Your task to perform on an android device: View the shopping cart on walmart. Add "dell xps" to the cart on walmart Image 0: 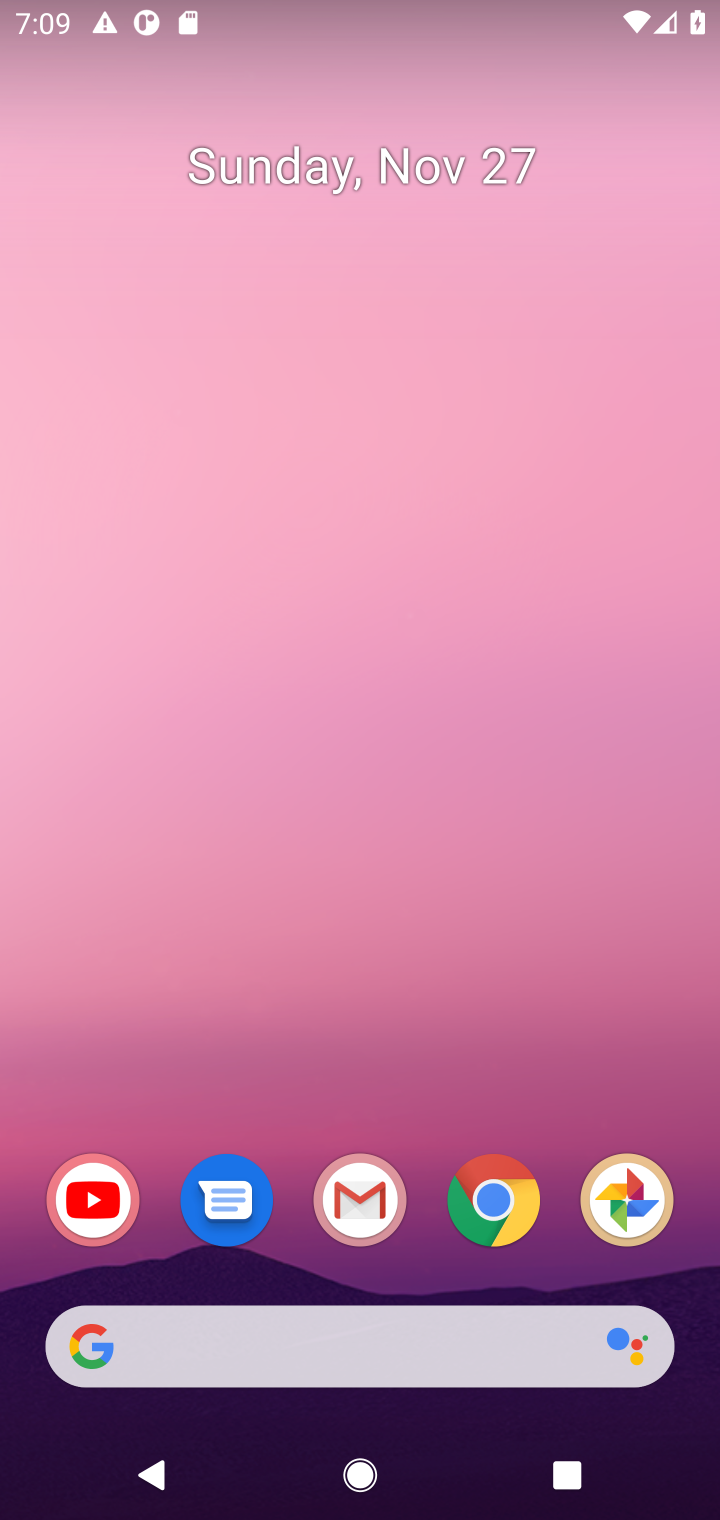
Step 0: click (493, 1205)
Your task to perform on an android device: View the shopping cart on walmart. Add "dell xps" to the cart on walmart Image 1: 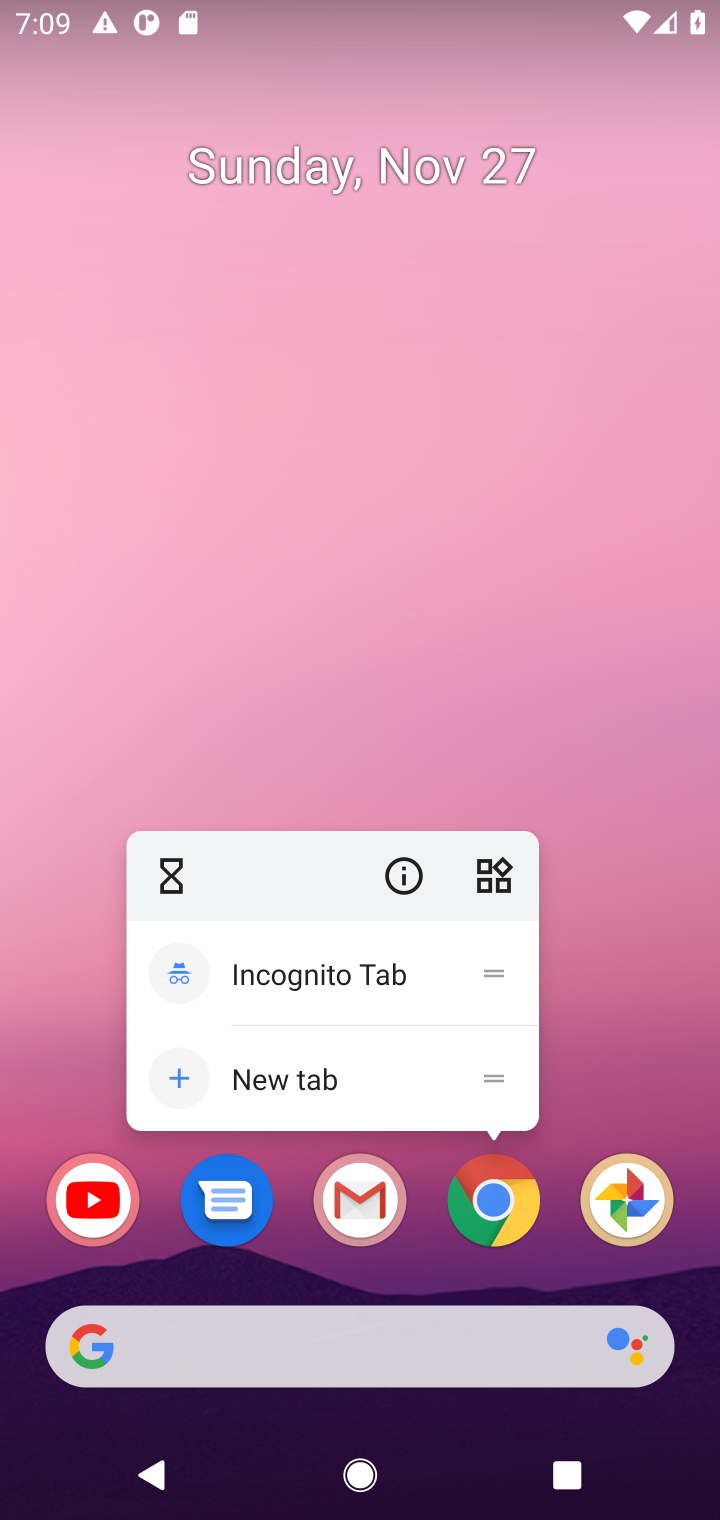
Step 1: click (493, 1205)
Your task to perform on an android device: View the shopping cart on walmart. Add "dell xps" to the cart on walmart Image 2: 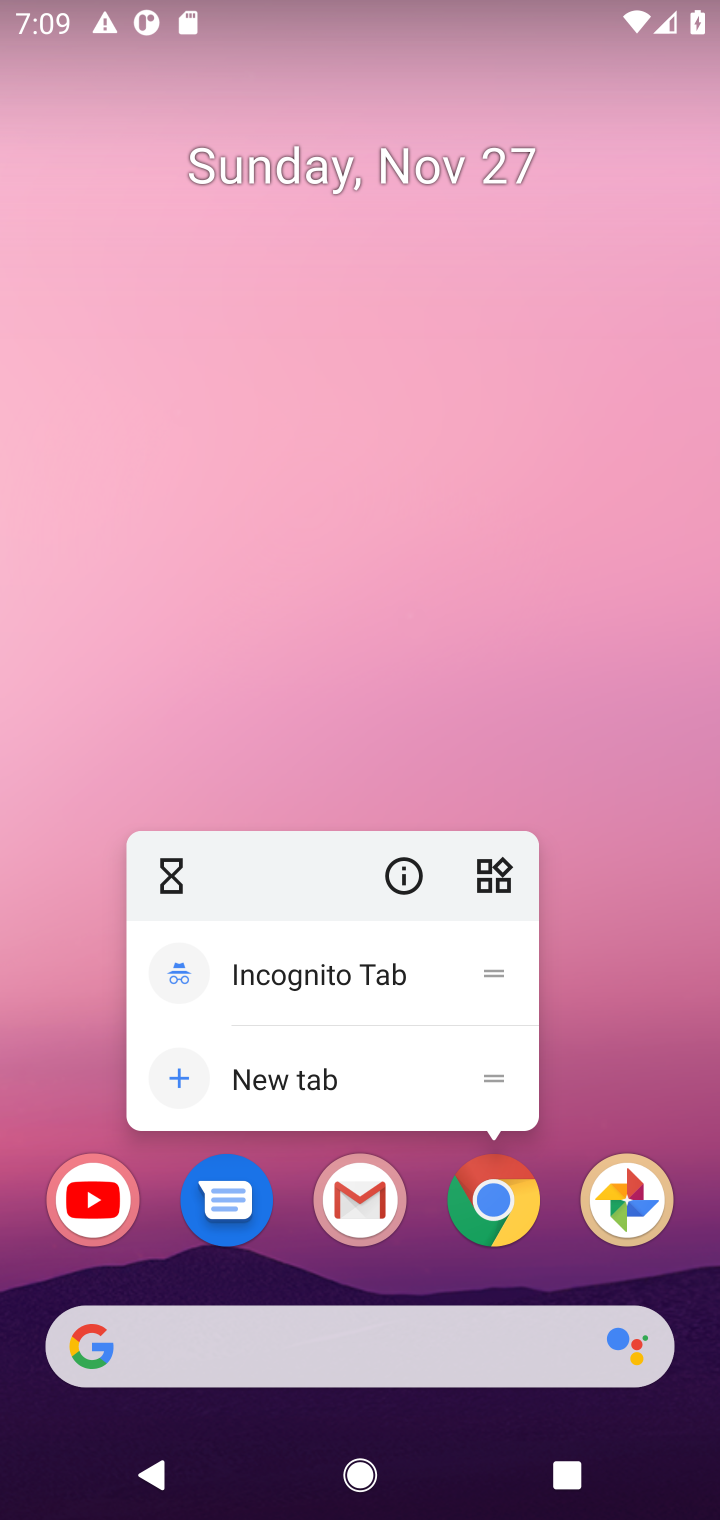
Step 2: click (493, 1205)
Your task to perform on an android device: View the shopping cart on walmart. Add "dell xps" to the cart on walmart Image 3: 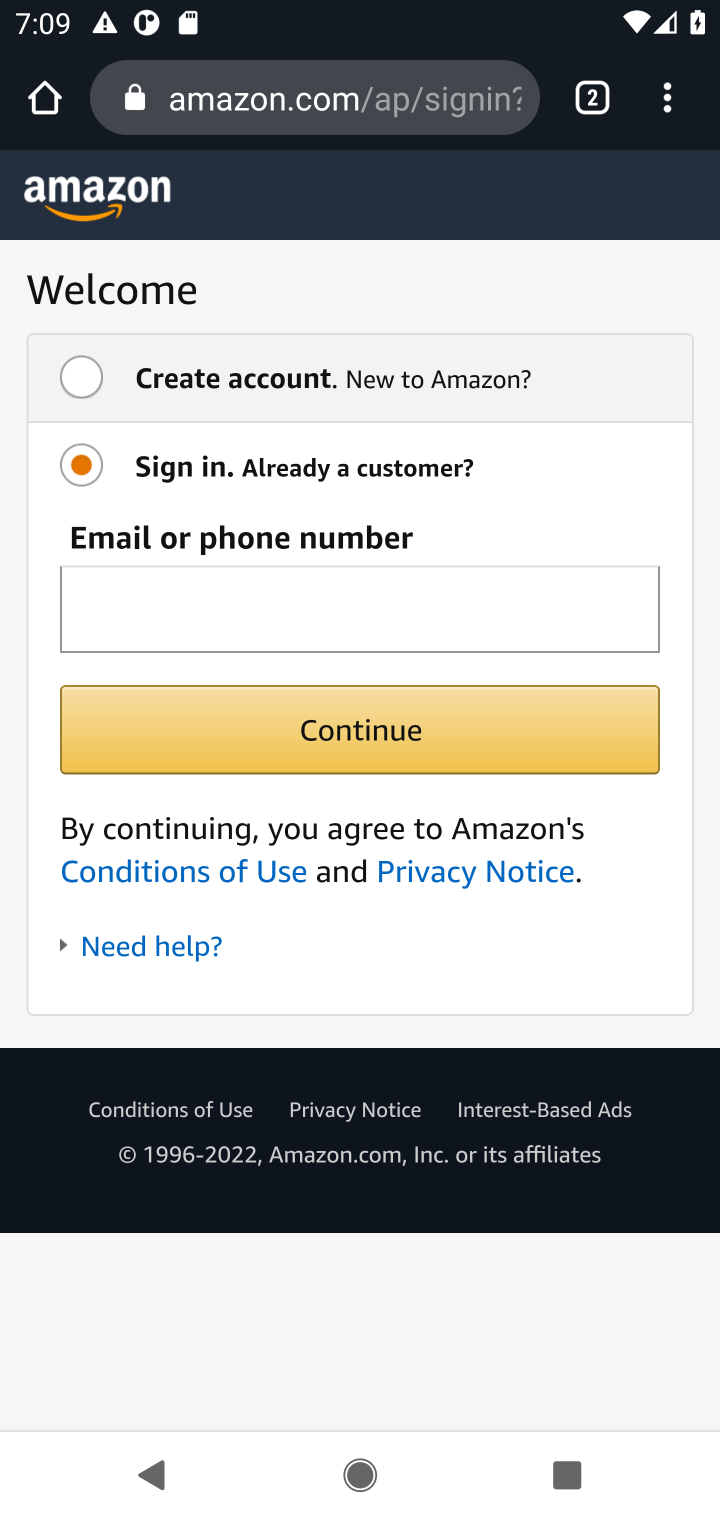
Step 3: click (321, 79)
Your task to perform on an android device: View the shopping cart on walmart. Add "dell xps" to the cart on walmart Image 4: 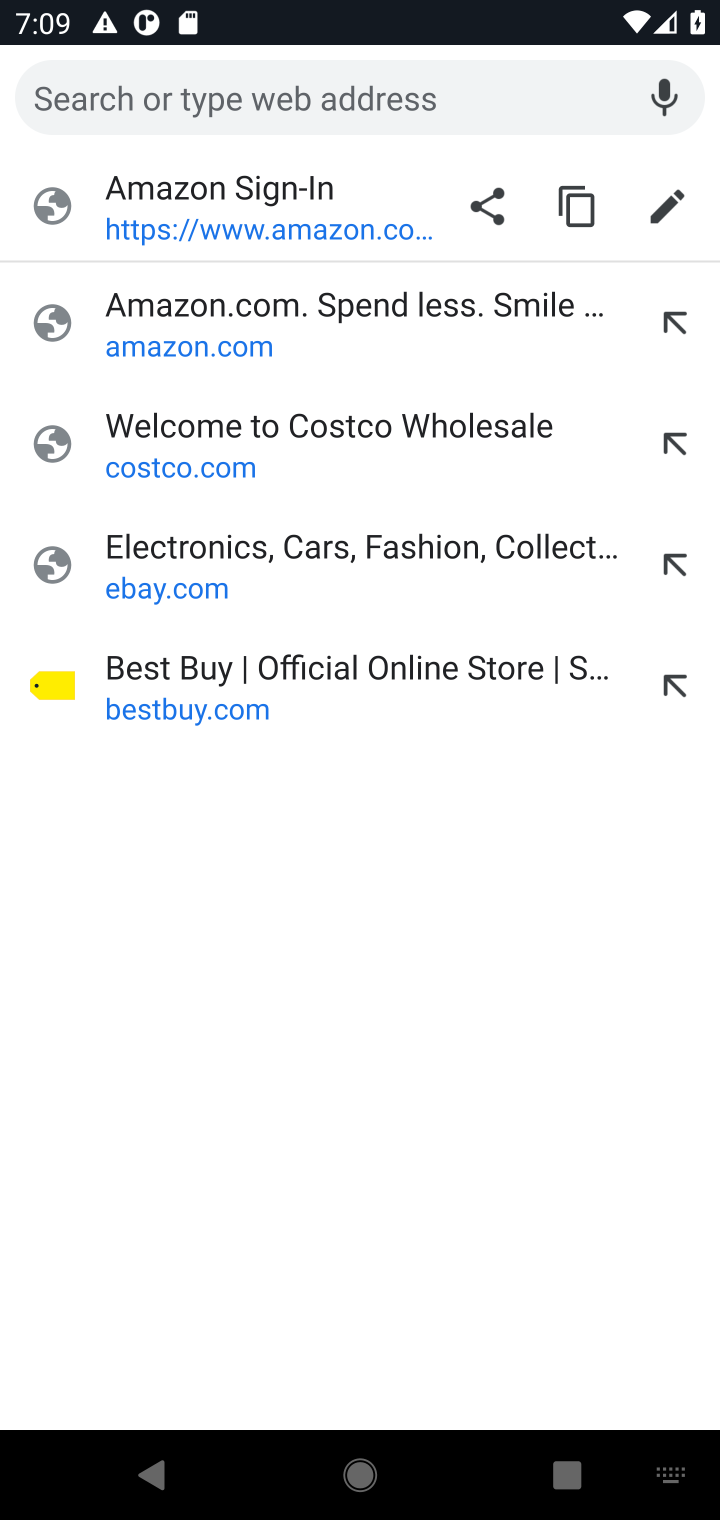
Step 4: type "walmart.com"
Your task to perform on an android device: View the shopping cart on walmart. Add "dell xps" to the cart on walmart Image 5: 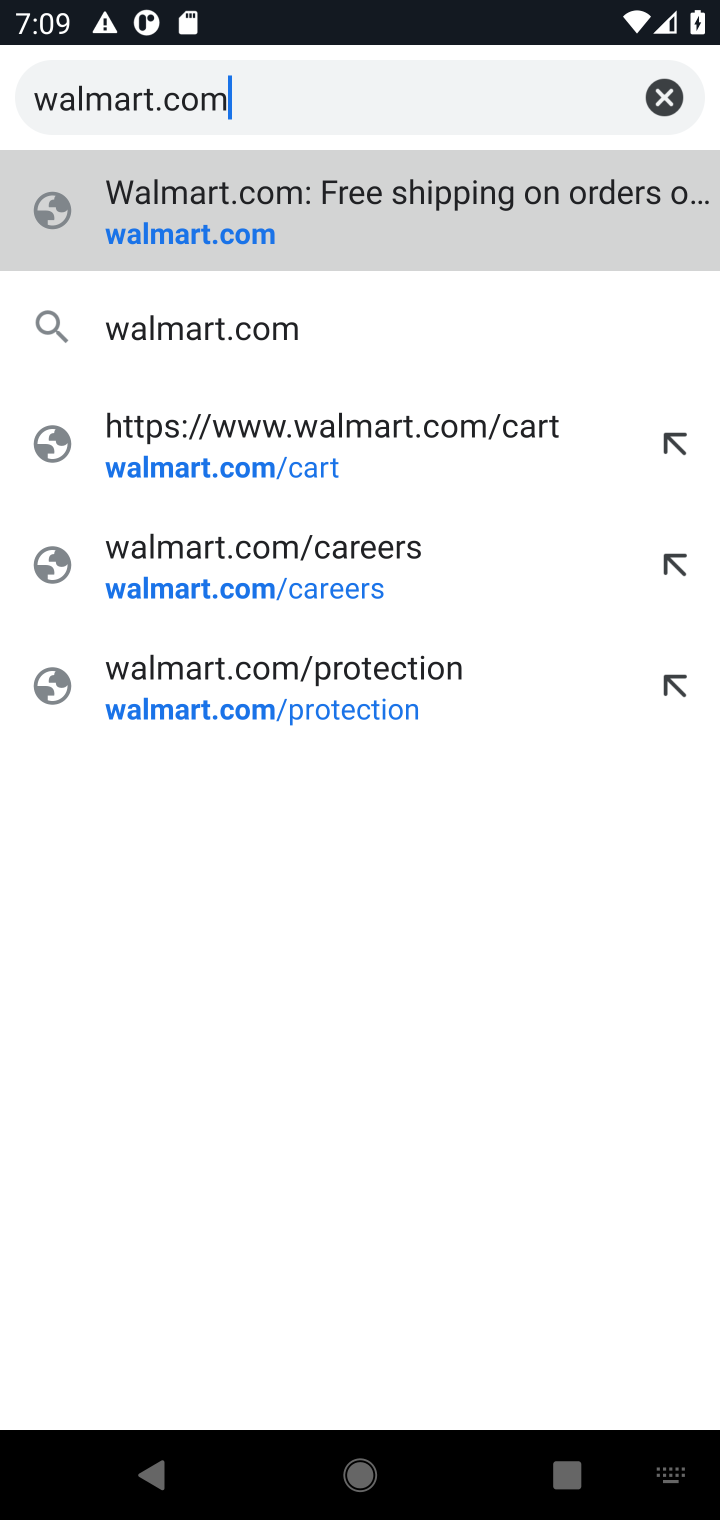
Step 5: click (174, 246)
Your task to perform on an android device: View the shopping cart on walmart. Add "dell xps" to the cart on walmart Image 6: 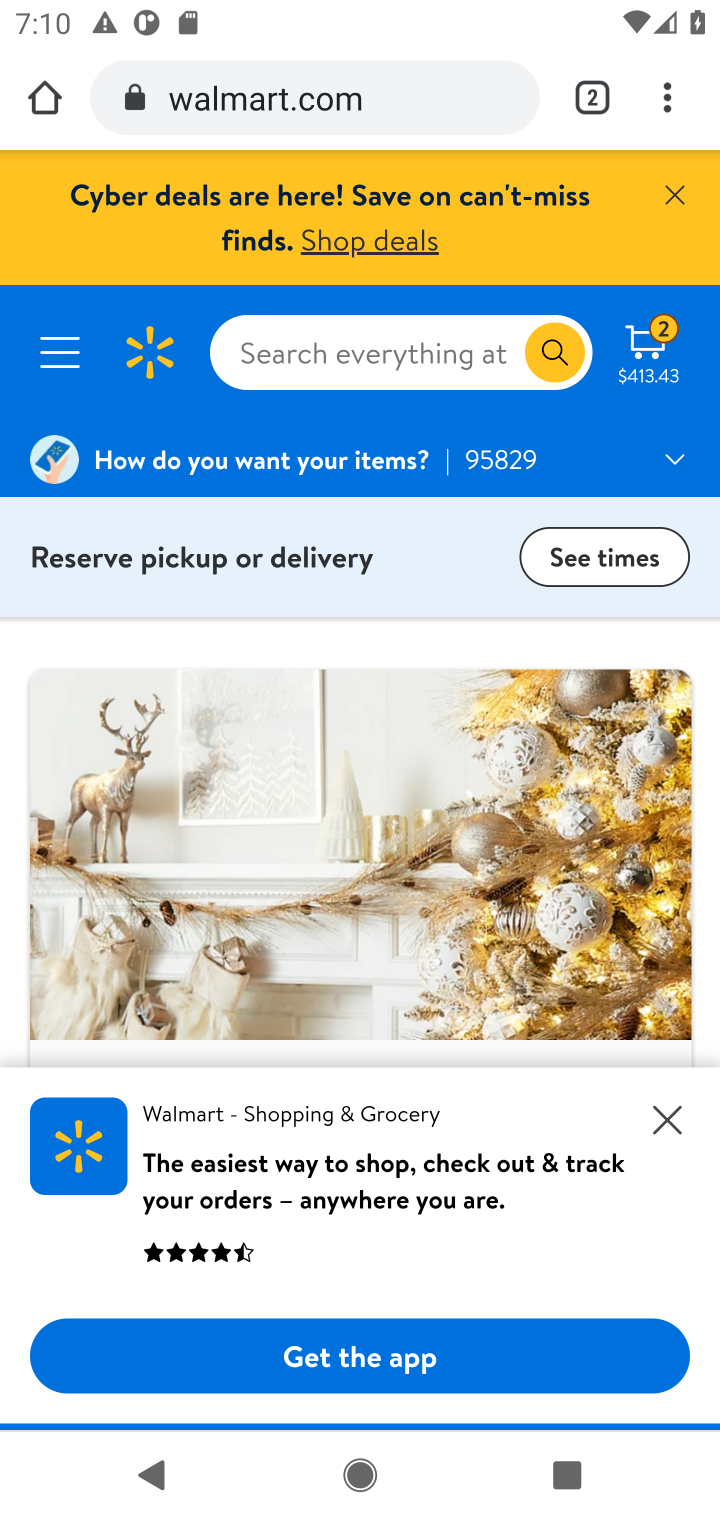
Step 6: click (646, 368)
Your task to perform on an android device: View the shopping cart on walmart. Add "dell xps" to the cart on walmart Image 7: 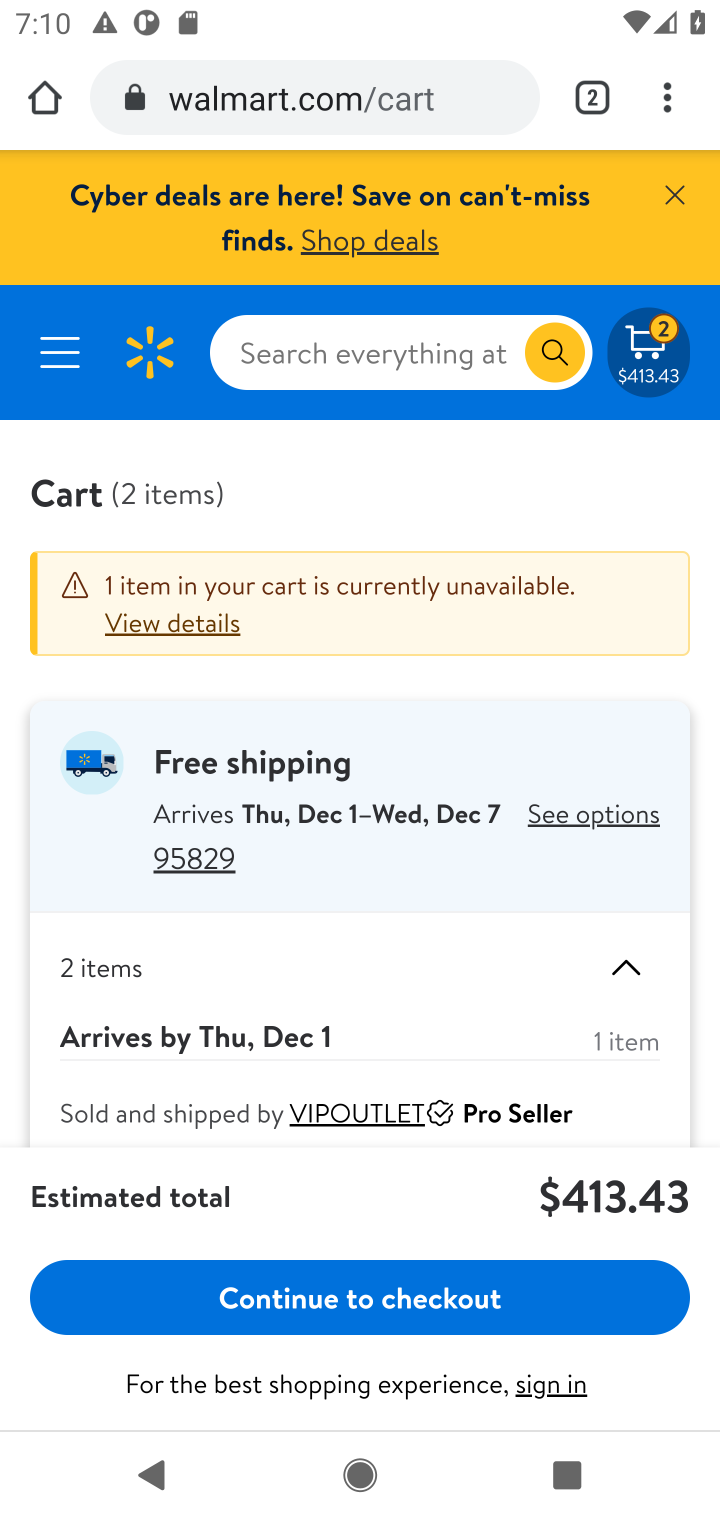
Step 7: click (374, 343)
Your task to perform on an android device: View the shopping cart on walmart. Add "dell xps" to the cart on walmart Image 8: 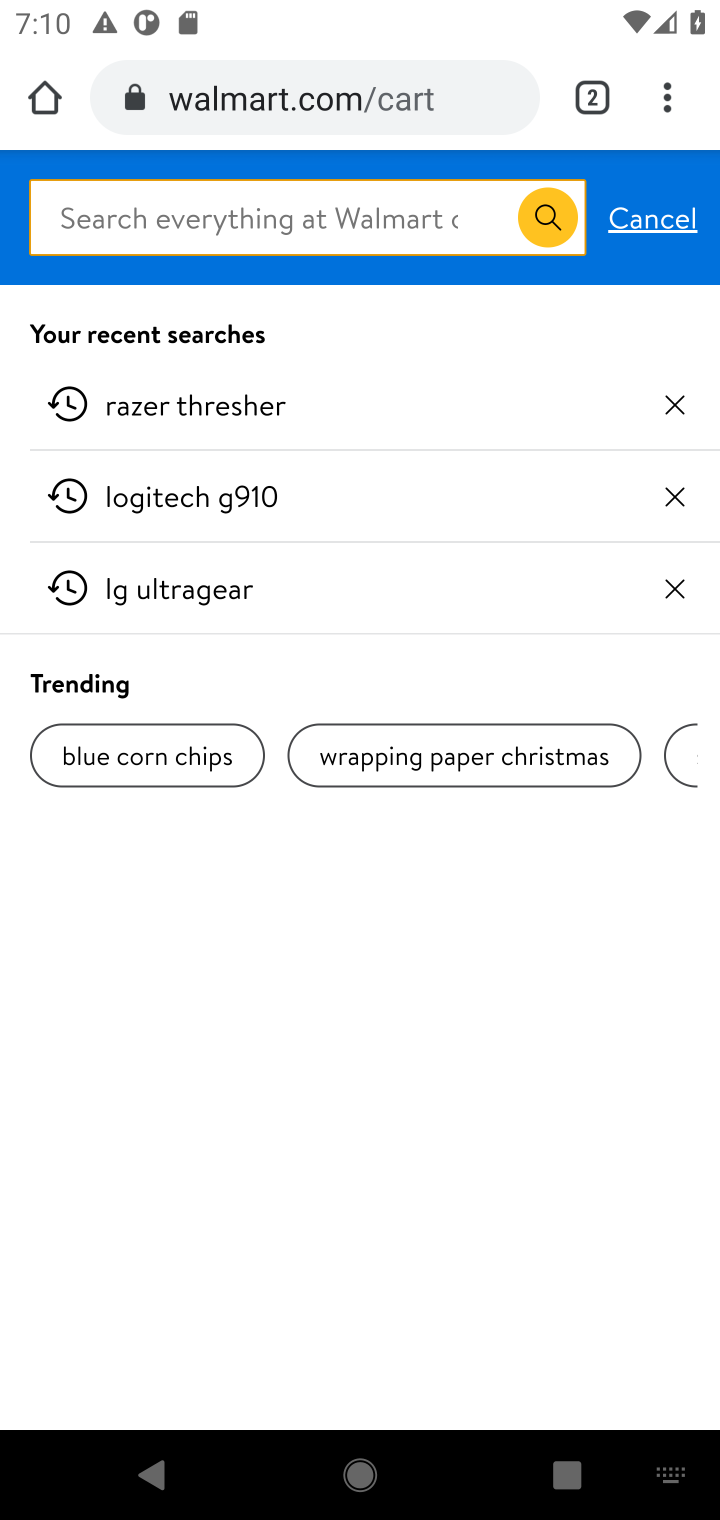
Step 8: type "dell xps"
Your task to perform on an android device: View the shopping cart on walmart. Add "dell xps" to the cart on walmart Image 9: 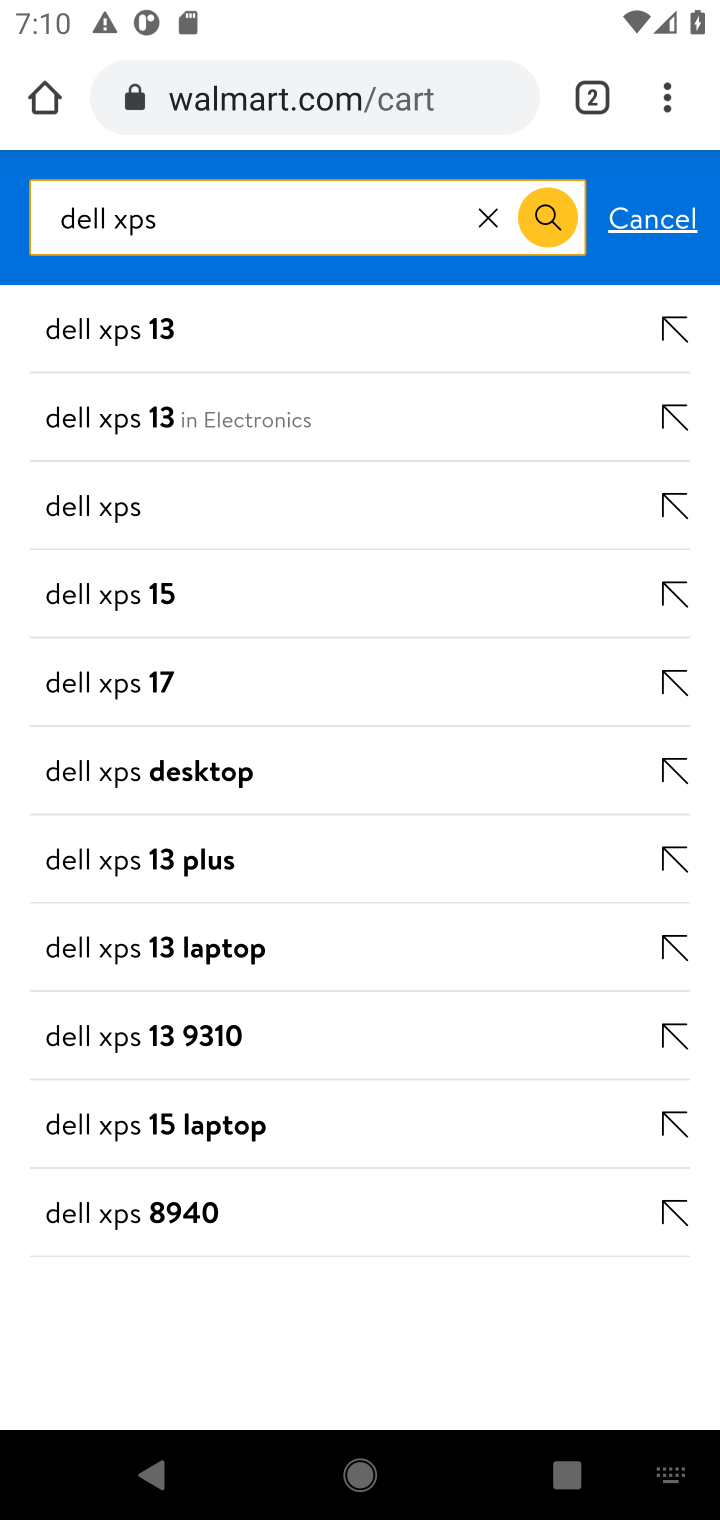
Step 9: click (123, 513)
Your task to perform on an android device: View the shopping cart on walmart. Add "dell xps" to the cart on walmart Image 10: 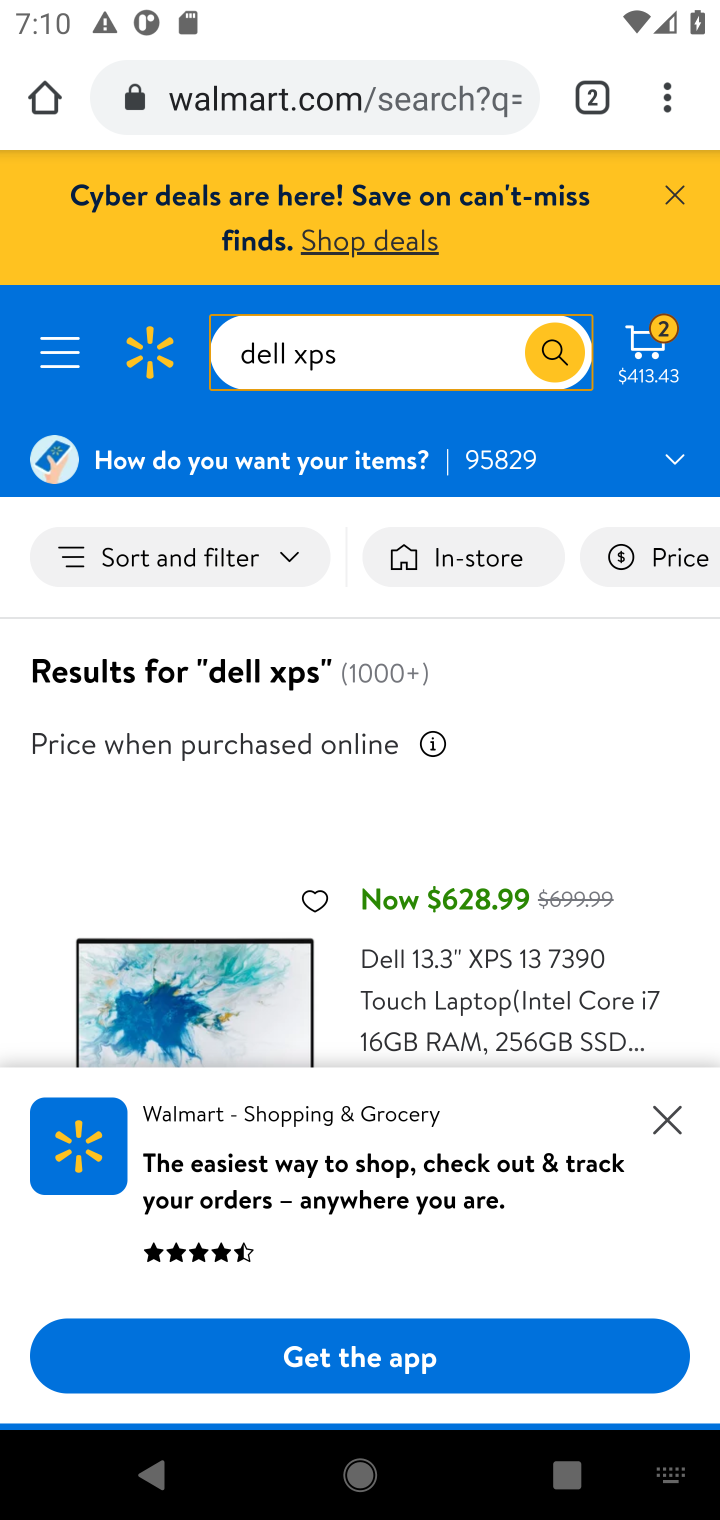
Step 10: click (667, 1125)
Your task to perform on an android device: View the shopping cart on walmart. Add "dell xps" to the cart on walmart Image 11: 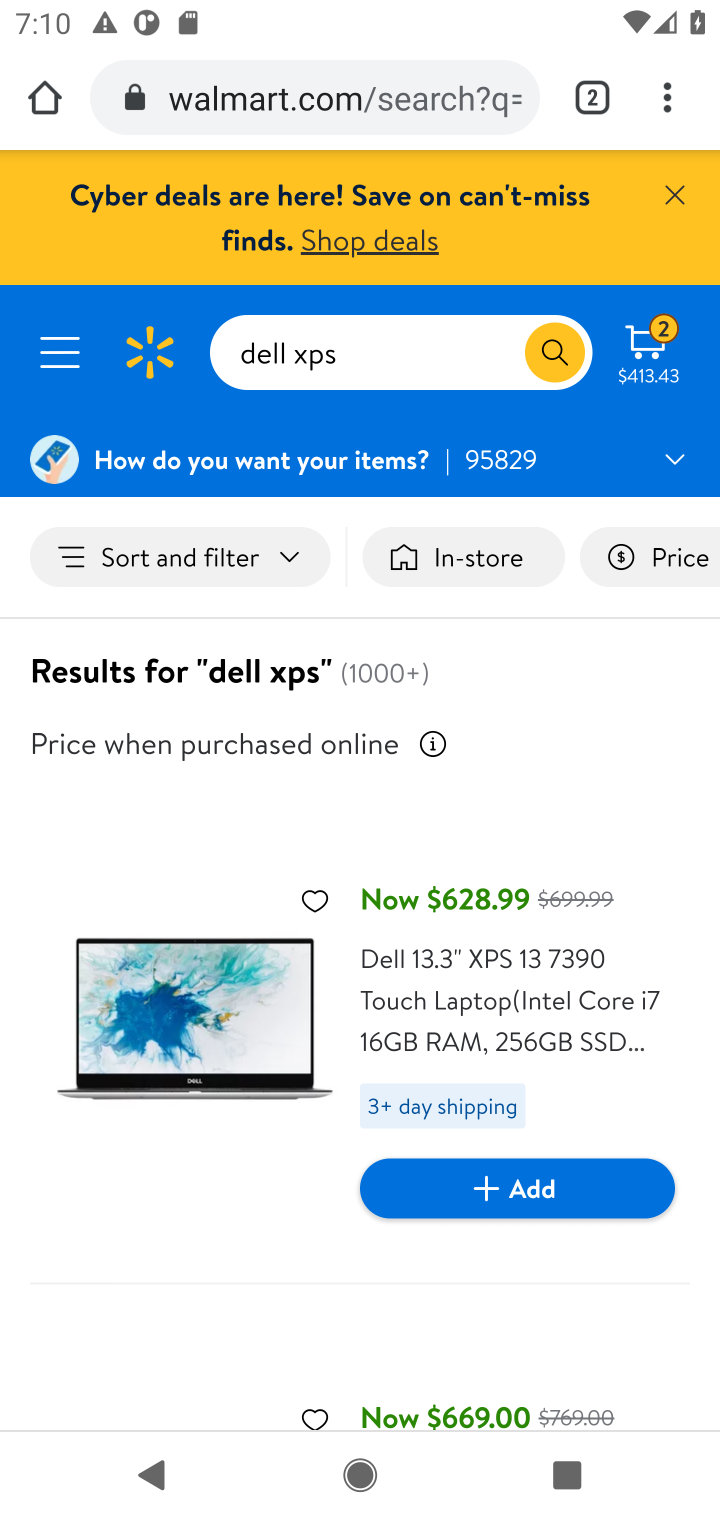
Step 11: click (474, 1189)
Your task to perform on an android device: View the shopping cart on walmart. Add "dell xps" to the cart on walmart Image 12: 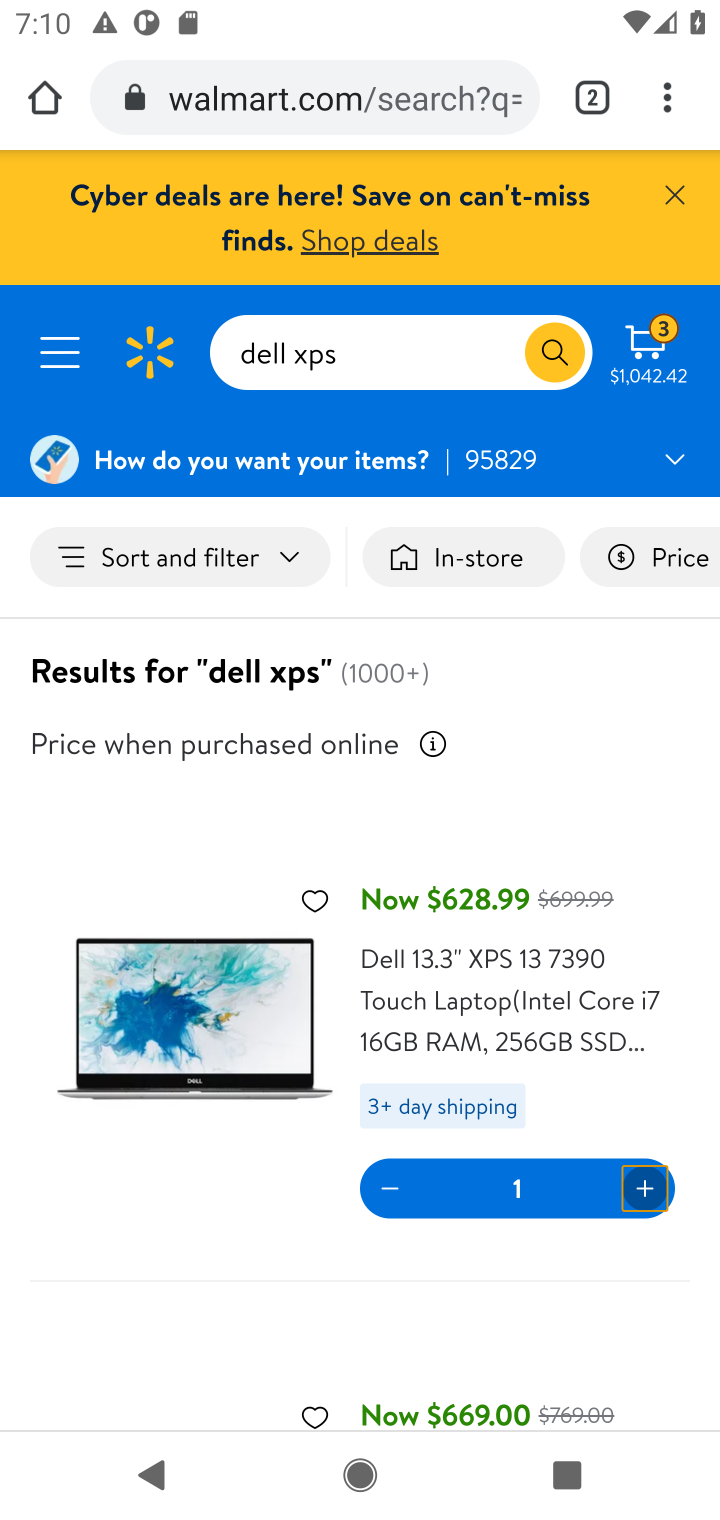
Step 12: task complete